Your task to perform on an android device: turn off translation in the chrome app Image 0: 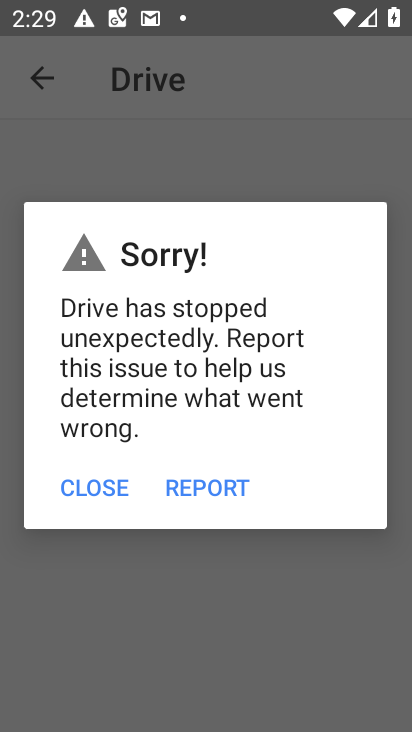
Step 0: press home button
Your task to perform on an android device: turn off translation in the chrome app Image 1: 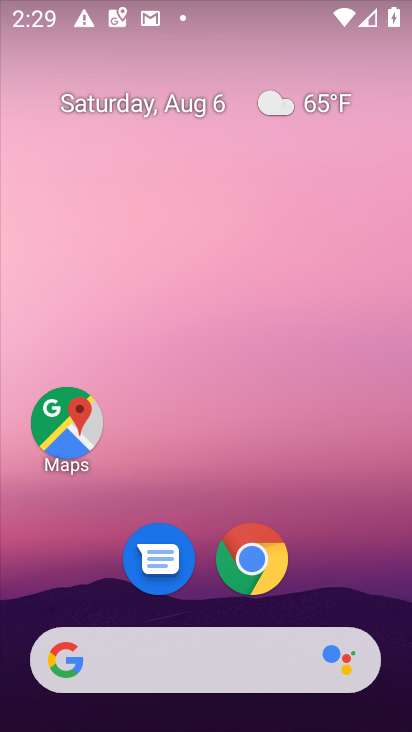
Step 1: click (262, 547)
Your task to perform on an android device: turn off translation in the chrome app Image 2: 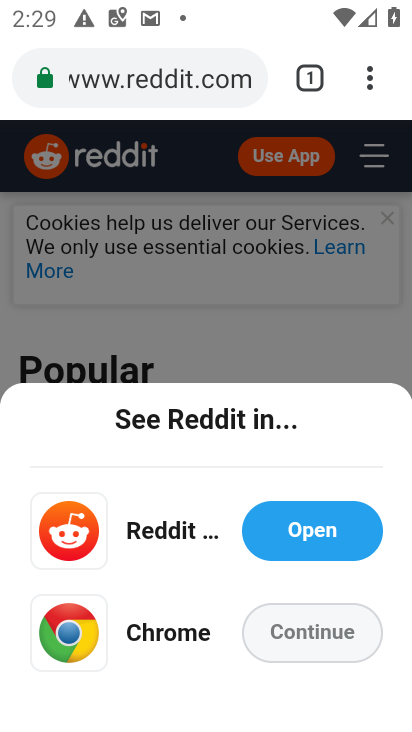
Step 2: click (277, 655)
Your task to perform on an android device: turn off translation in the chrome app Image 3: 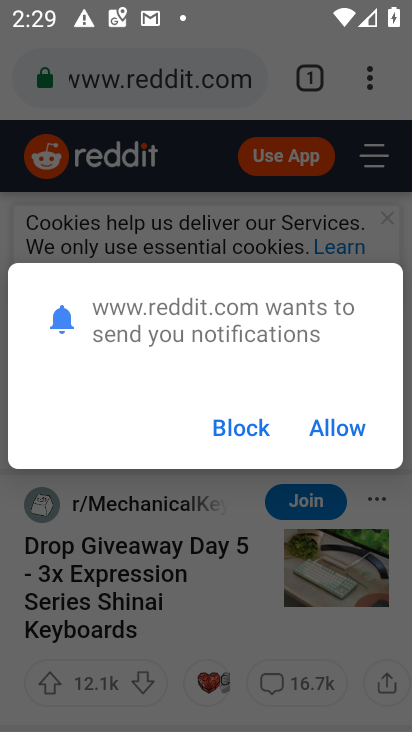
Step 3: click (335, 433)
Your task to perform on an android device: turn off translation in the chrome app Image 4: 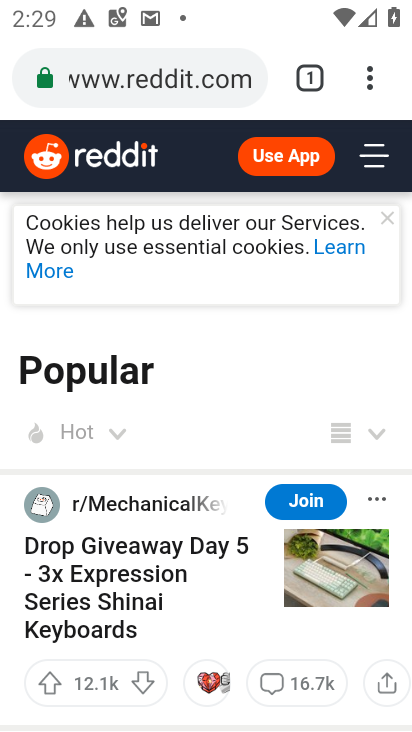
Step 4: click (363, 74)
Your task to perform on an android device: turn off translation in the chrome app Image 5: 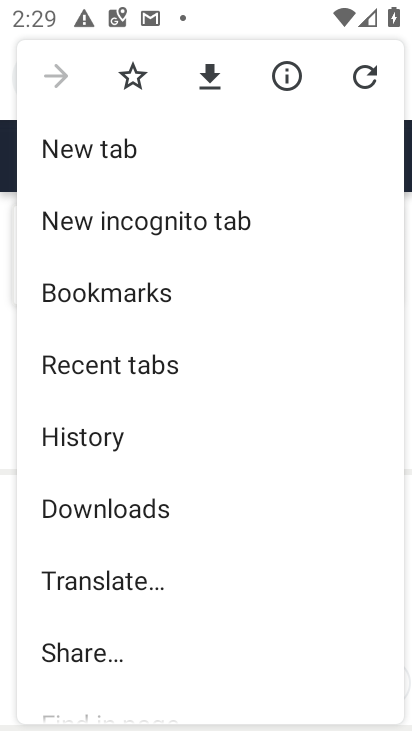
Step 5: drag from (145, 578) to (197, 300)
Your task to perform on an android device: turn off translation in the chrome app Image 6: 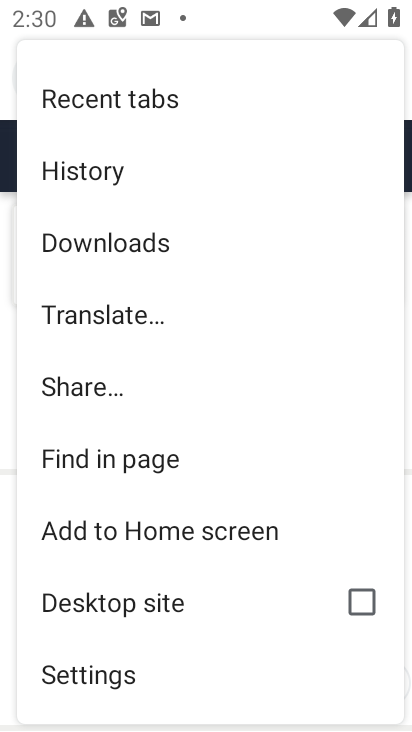
Step 6: click (133, 663)
Your task to perform on an android device: turn off translation in the chrome app Image 7: 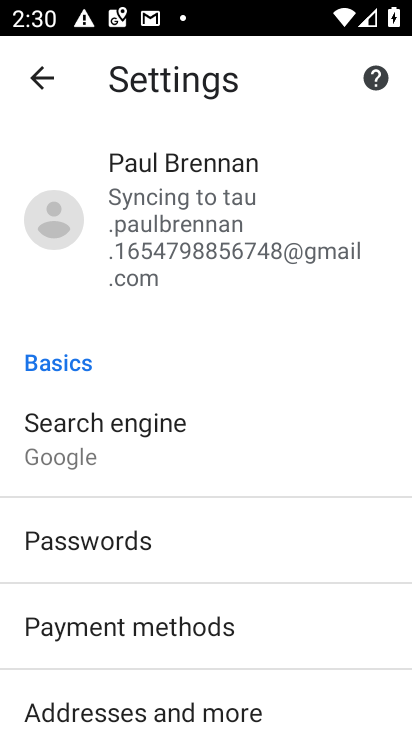
Step 7: drag from (158, 601) to (207, 277)
Your task to perform on an android device: turn off translation in the chrome app Image 8: 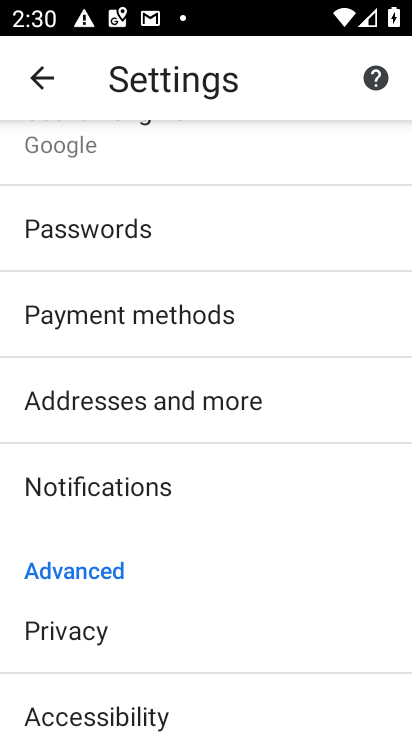
Step 8: drag from (233, 579) to (289, 247)
Your task to perform on an android device: turn off translation in the chrome app Image 9: 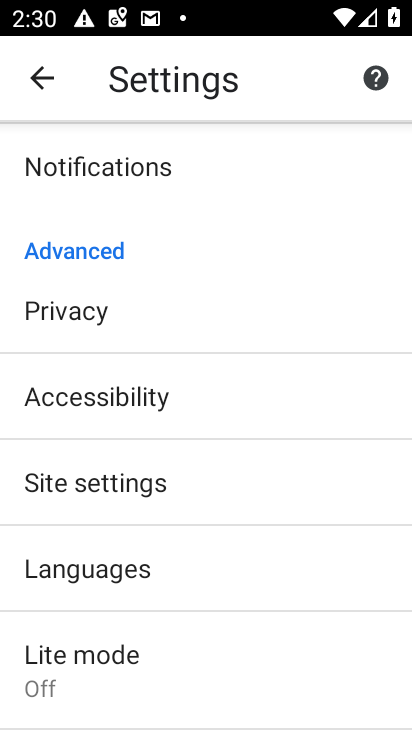
Step 9: click (144, 568)
Your task to perform on an android device: turn off translation in the chrome app Image 10: 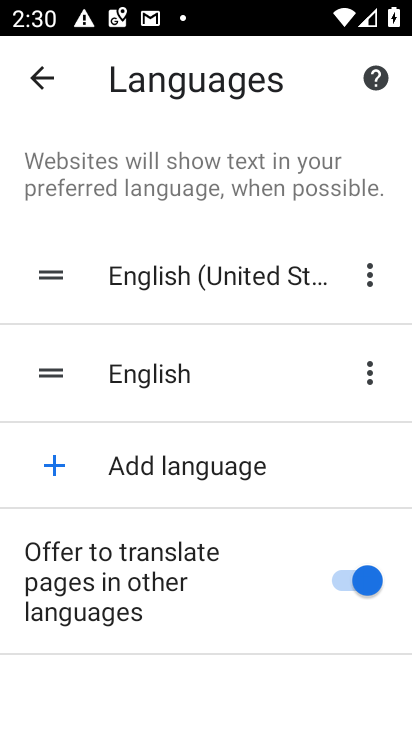
Step 10: click (339, 576)
Your task to perform on an android device: turn off translation in the chrome app Image 11: 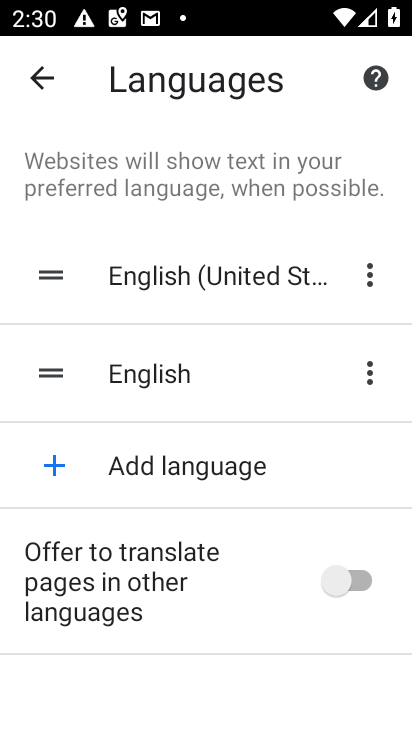
Step 11: task complete